Your task to perform on an android device: turn on the 24-hour format for clock Image 0: 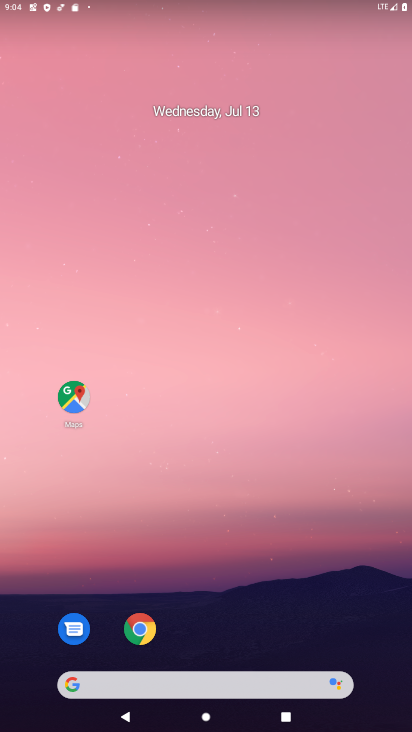
Step 0: drag from (224, 650) to (259, 17)
Your task to perform on an android device: turn on the 24-hour format for clock Image 1: 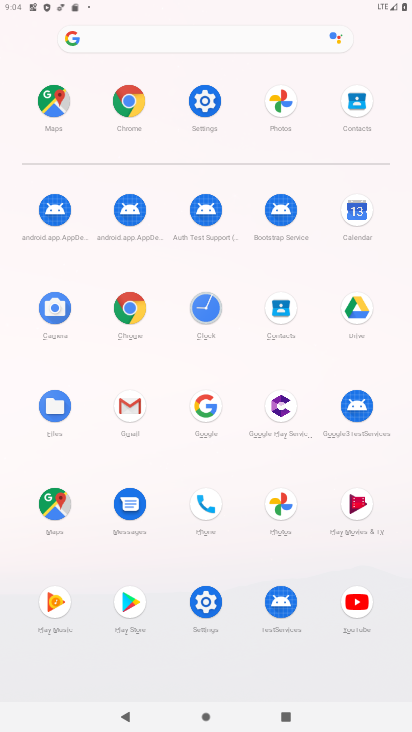
Step 1: click (204, 302)
Your task to perform on an android device: turn on the 24-hour format for clock Image 2: 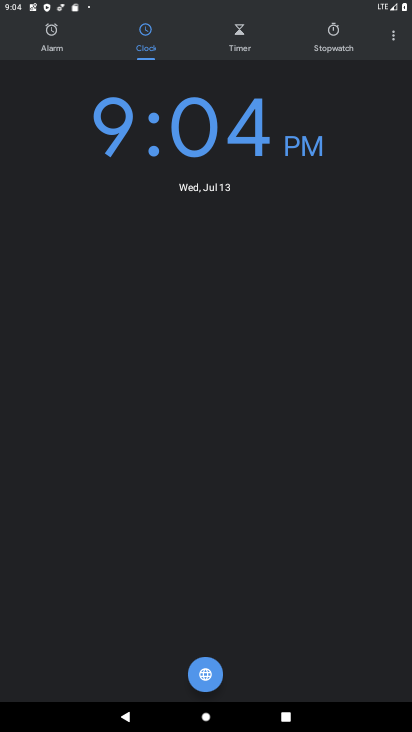
Step 2: click (392, 40)
Your task to perform on an android device: turn on the 24-hour format for clock Image 3: 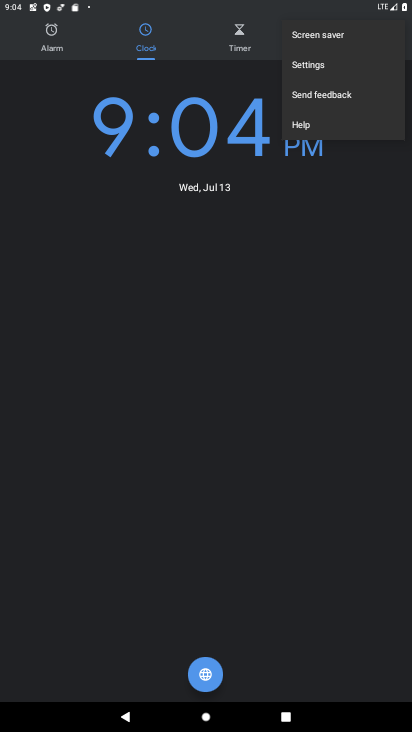
Step 3: click (317, 63)
Your task to perform on an android device: turn on the 24-hour format for clock Image 4: 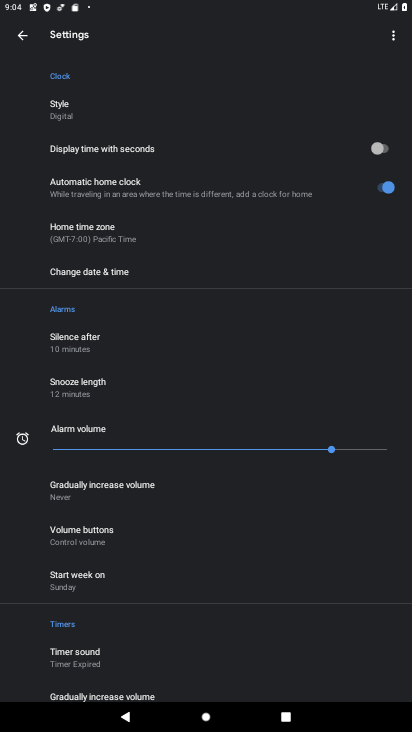
Step 4: click (109, 277)
Your task to perform on an android device: turn on the 24-hour format for clock Image 5: 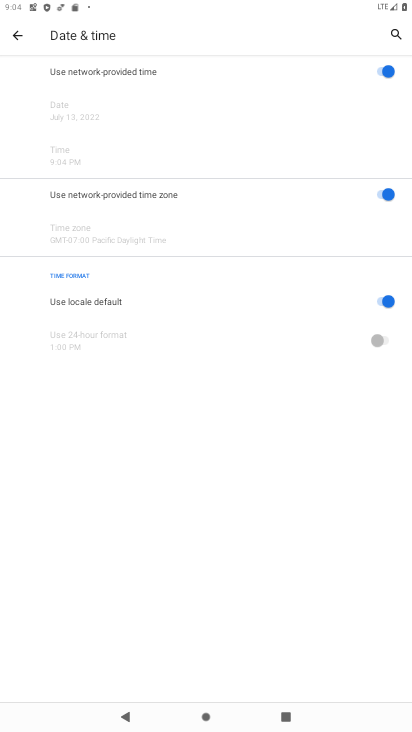
Step 5: click (380, 306)
Your task to perform on an android device: turn on the 24-hour format for clock Image 6: 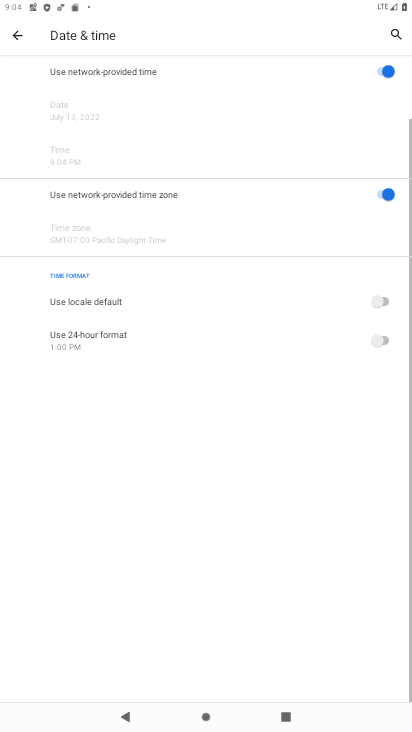
Step 6: click (381, 337)
Your task to perform on an android device: turn on the 24-hour format for clock Image 7: 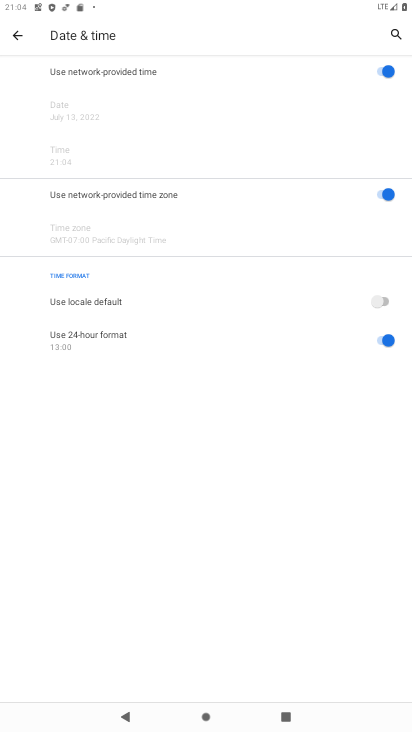
Step 7: task complete